Your task to perform on an android device: Open wifi settings Image 0: 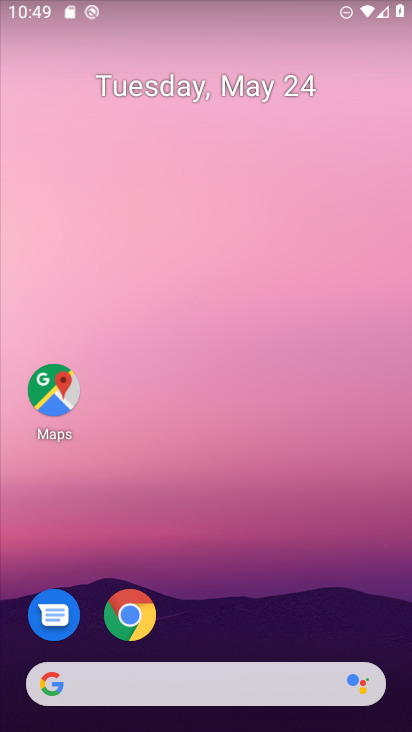
Step 0: drag from (229, 707) to (364, 51)
Your task to perform on an android device: Open wifi settings Image 1: 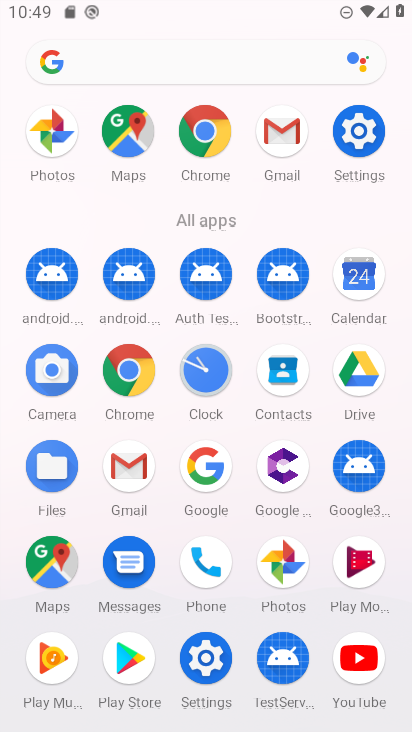
Step 1: click (369, 139)
Your task to perform on an android device: Open wifi settings Image 2: 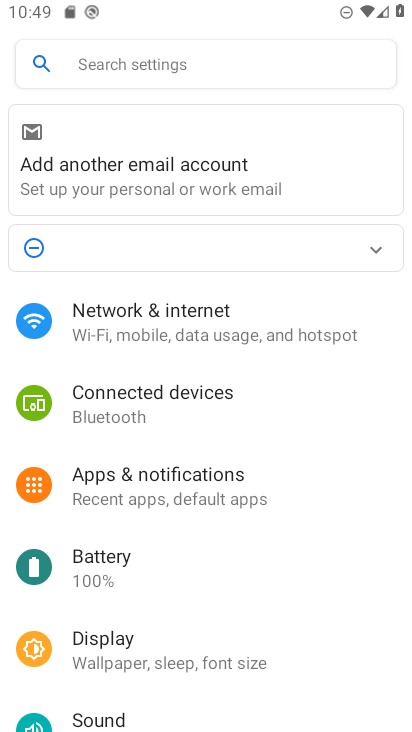
Step 2: click (209, 310)
Your task to perform on an android device: Open wifi settings Image 3: 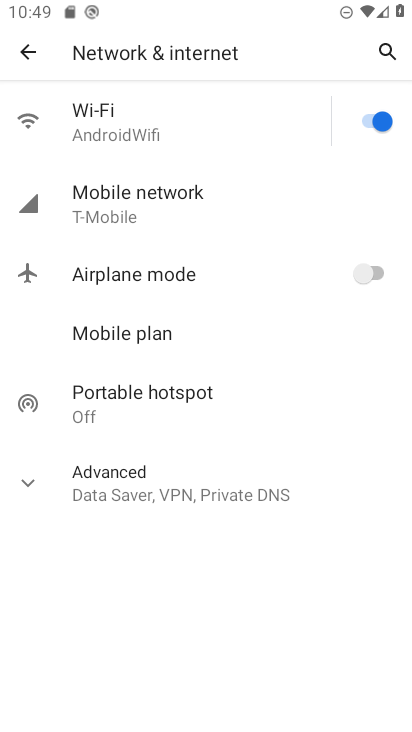
Step 3: click (190, 110)
Your task to perform on an android device: Open wifi settings Image 4: 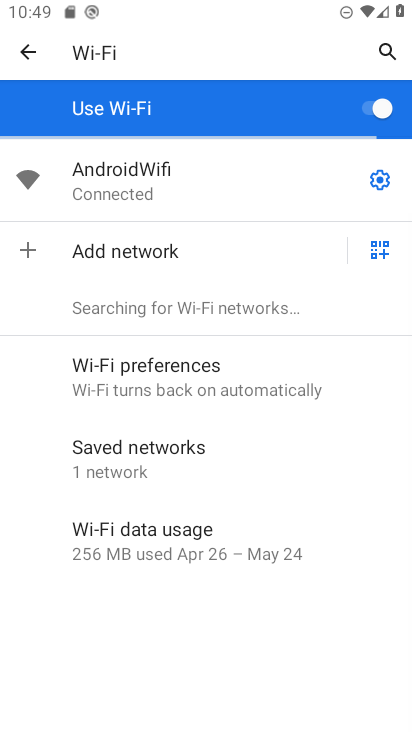
Step 4: task complete